Your task to perform on an android device: Open Google Chrome Image 0: 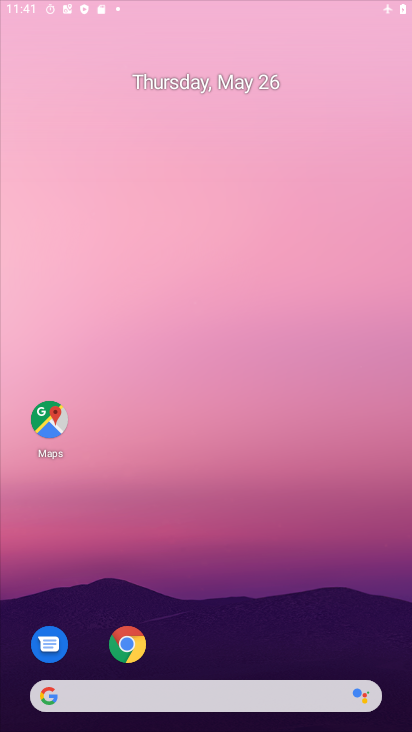
Step 0: drag from (258, 7) to (238, 548)
Your task to perform on an android device: Open Google Chrome Image 1: 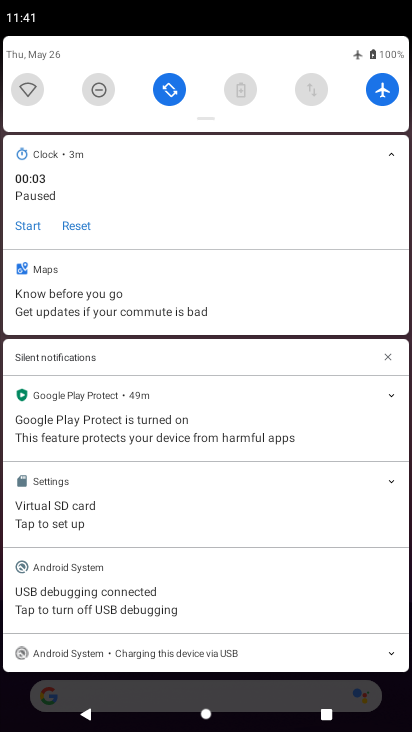
Step 1: click (378, 88)
Your task to perform on an android device: Open Google Chrome Image 2: 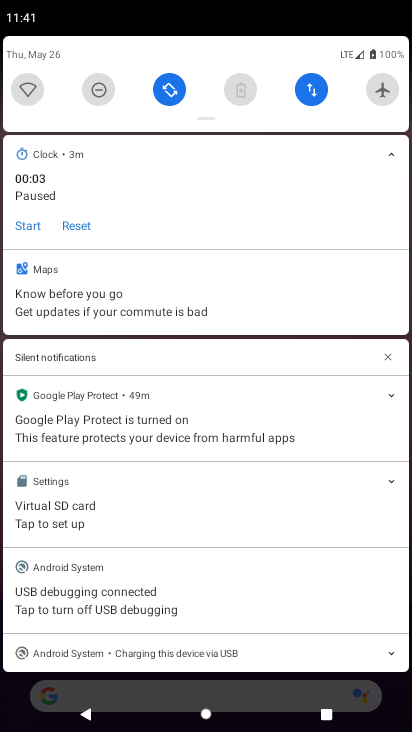
Step 2: press home button
Your task to perform on an android device: Open Google Chrome Image 3: 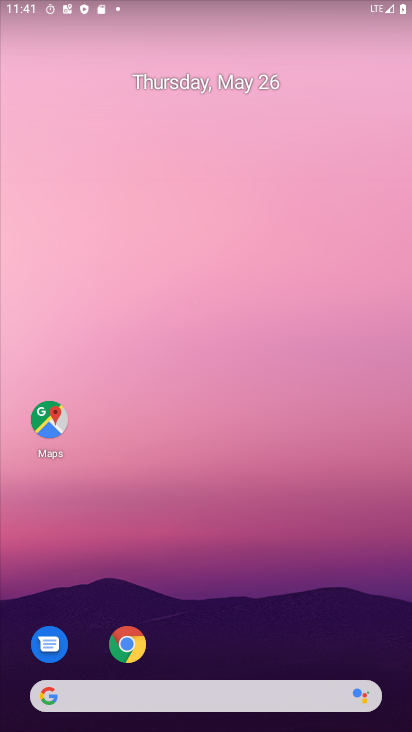
Step 3: click (134, 641)
Your task to perform on an android device: Open Google Chrome Image 4: 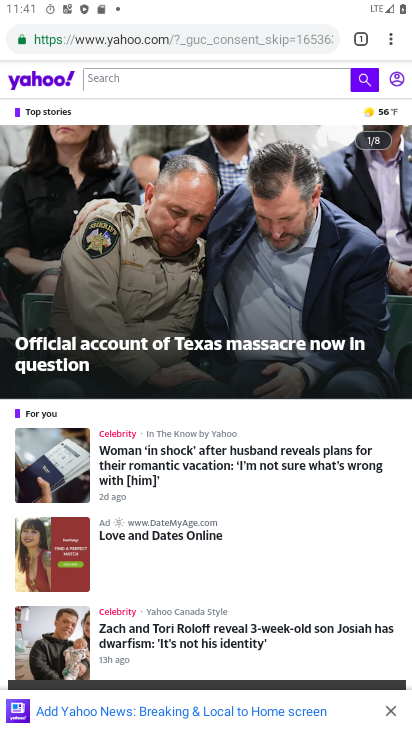
Step 4: task complete